Your task to perform on an android device: Go to settings Image 0: 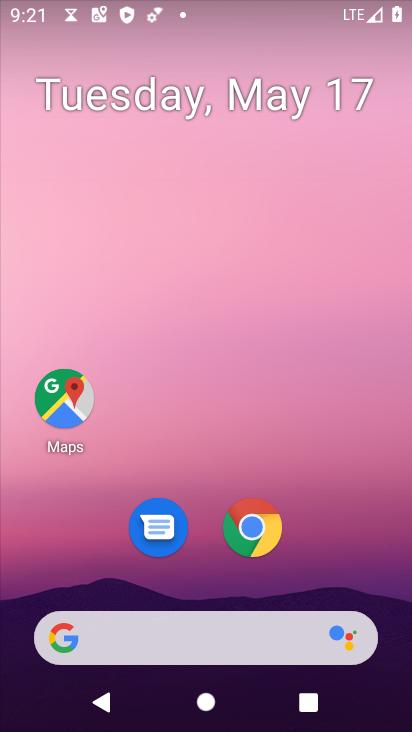
Step 0: press home button
Your task to perform on an android device: Go to settings Image 1: 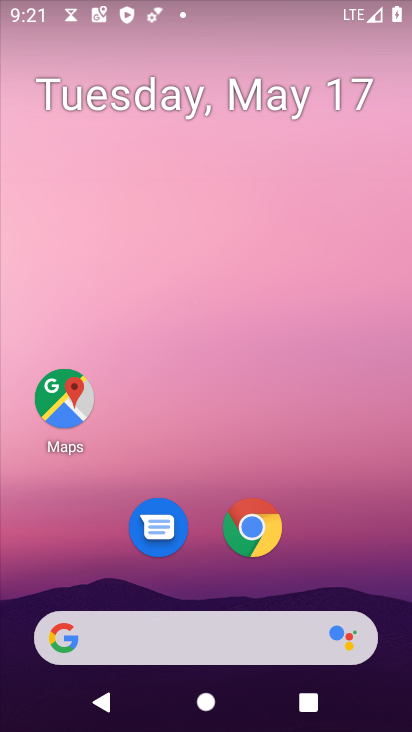
Step 1: drag from (167, 633) to (321, 159)
Your task to perform on an android device: Go to settings Image 2: 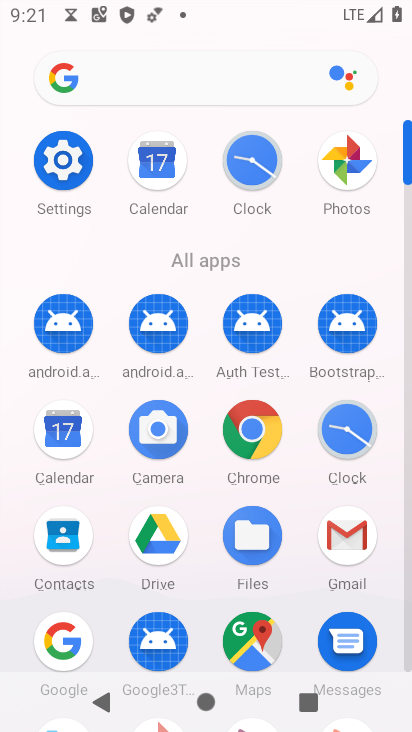
Step 2: click (59, 168)
Your task to perform on an android device: Go to settings Image 3: 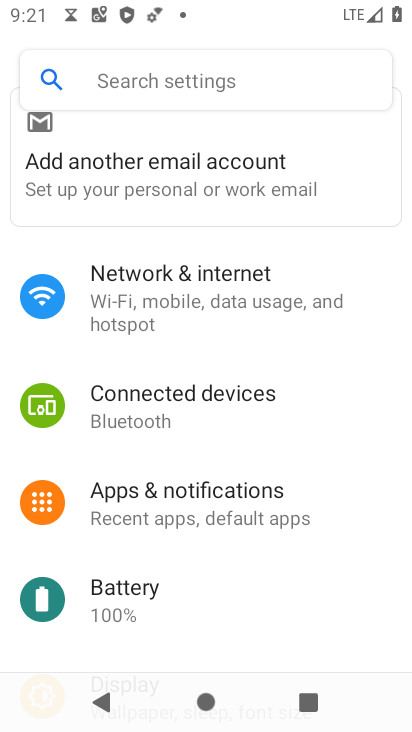
Step 3: task complete